Your task to perform on an android device: Search for sushi restaurants on Maps Image 0: 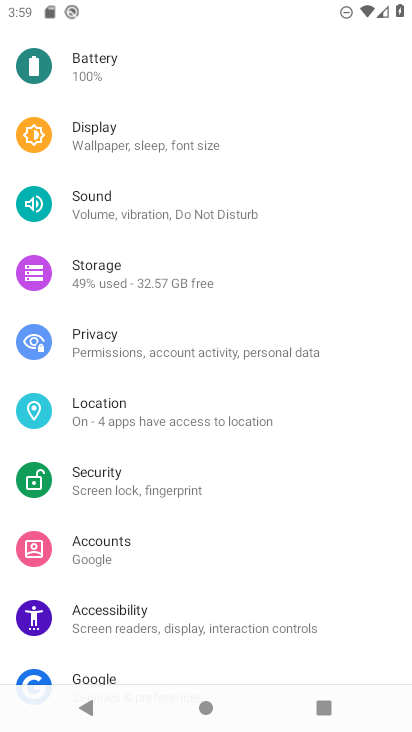
Step 0: press home button
Your task to perform on an android device: Search for sushi restaurants on Maps Image 1: 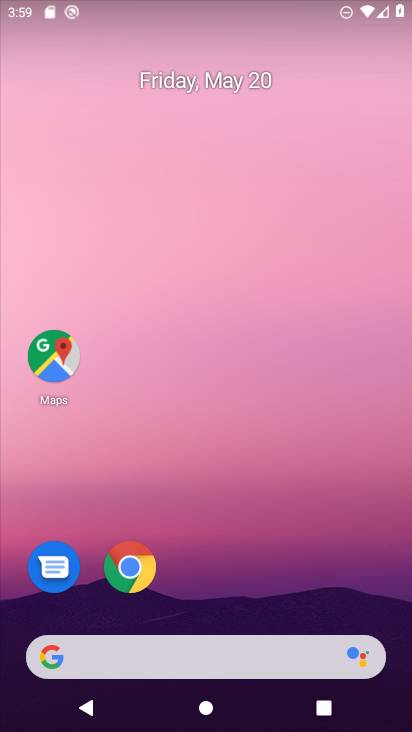
Step 1: drag from (213, 725) to (213, 165)
Your task to perform on an android device: Search for sushi restaurants on Maps Image 2: 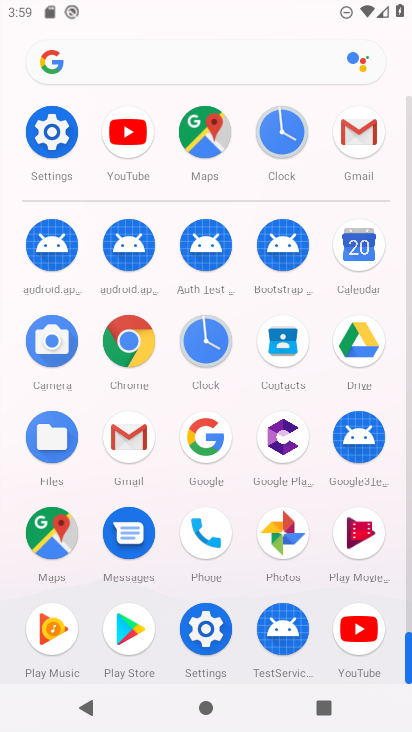
Step 2: click (53, 534)
Your task to perform on an android device: Search for sushi restaurants on Maps Image 3: 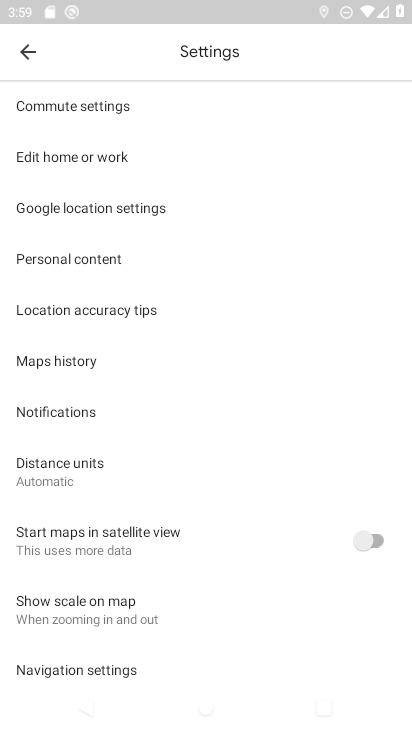
Step 3: click (24, 52)
Your task to perform on an android device: Search for sushi restaurants on Maps Image 4: 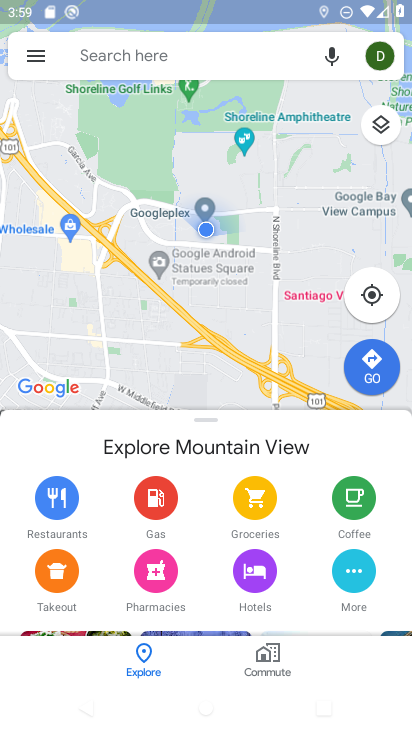
Step 4: click (182, 55)
Your task to perform on an android device: Search for sushi restaurants on Maps Image 5: 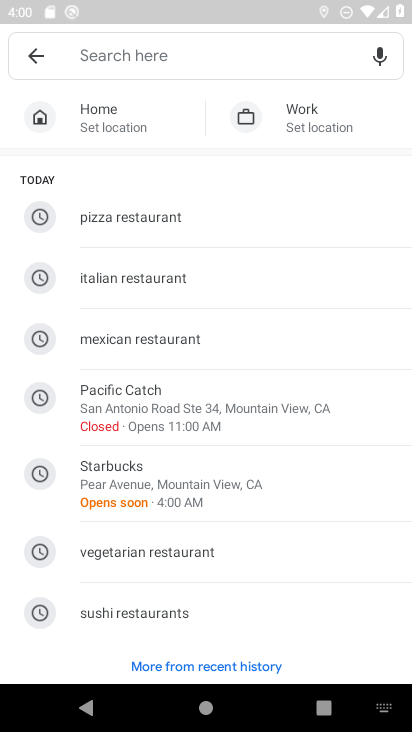
Step 5: type "sushi restaurants"
Your task to perform on an android device: Search for sushi restaurants on Maps Image 6: 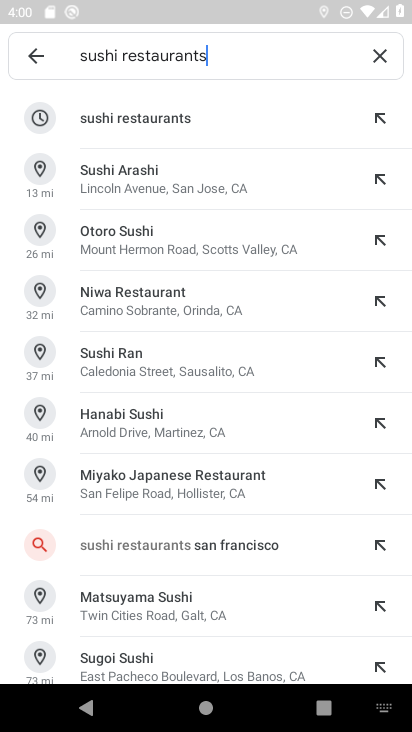
Step 6: click (122, 117)
Your task to perform on an android device: Search for sushi restaurants on Maps Image 7: 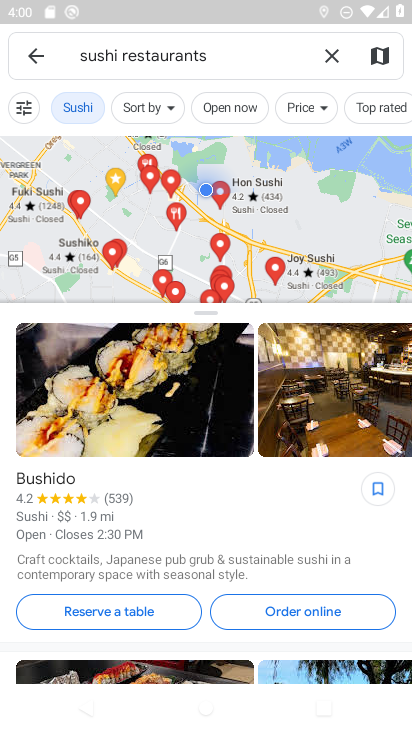
Step 7: task complete